Your task to perform on an android device: toggle data saver in the chrome app Image 0: 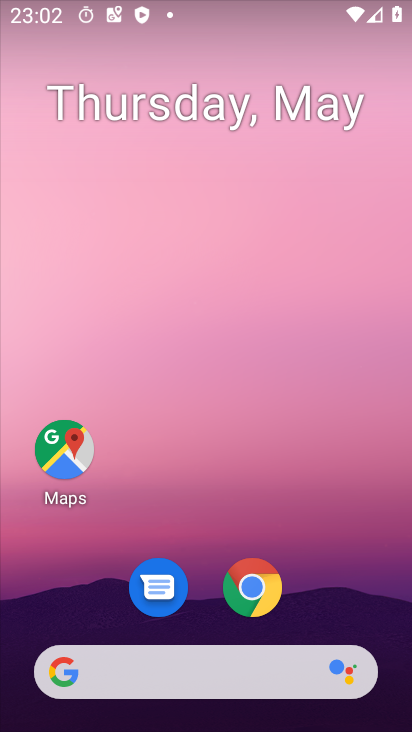
Step 0: click (254, 594)
Your task to perform on an android device: toggle data saver in the chrome app Image 1: 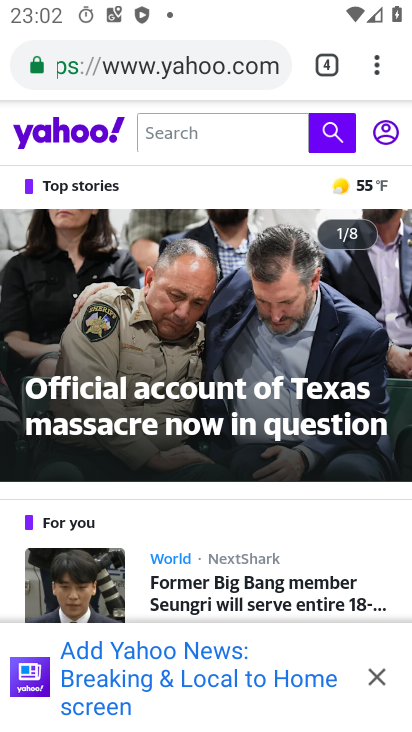
Step 1: click (378, 62)
Your task to perform on an android device: toggle data saver in the chrome app Image 2: 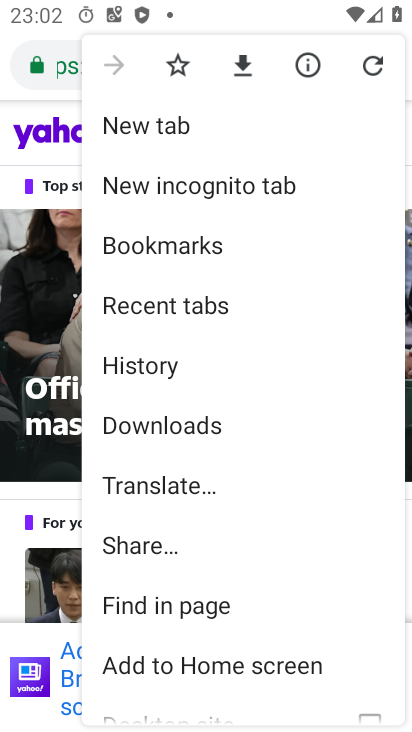
Step 2: drag from (250, 612) to (235, 121)
Your task to perform on an android device: toggle data saver in the chrome app Image 3: 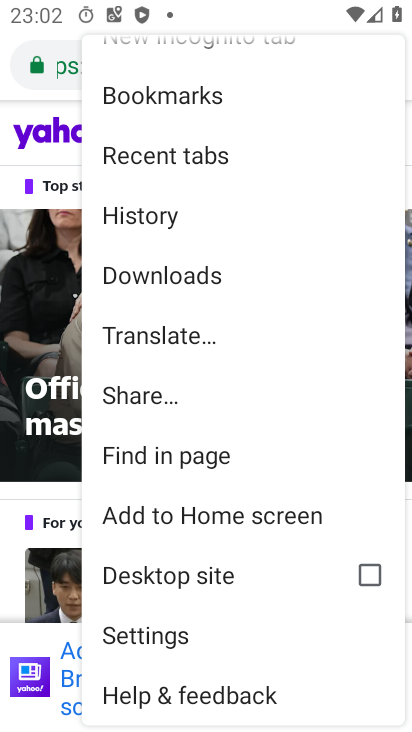
Step 3: click (157, 642)
Your task to perform on an android device: toggle data saver in the chrome app Image 4: 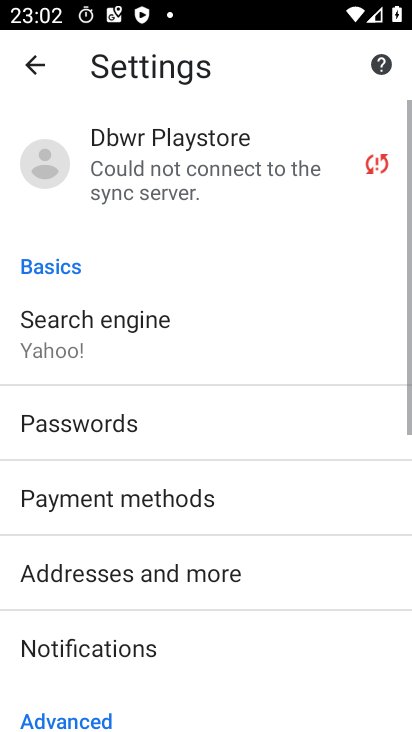
Step 4: drag from (157, 642) to (174, 108)
Your task to perform on an android device: toggle data saver in the chrome app Image 5: 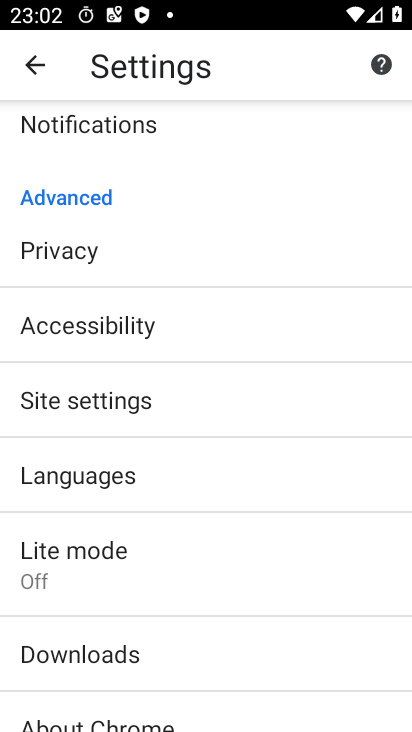
Step 5: click (87, 556)
Your task to perform on an android device: toggle data saver in the chrome app Image 6: 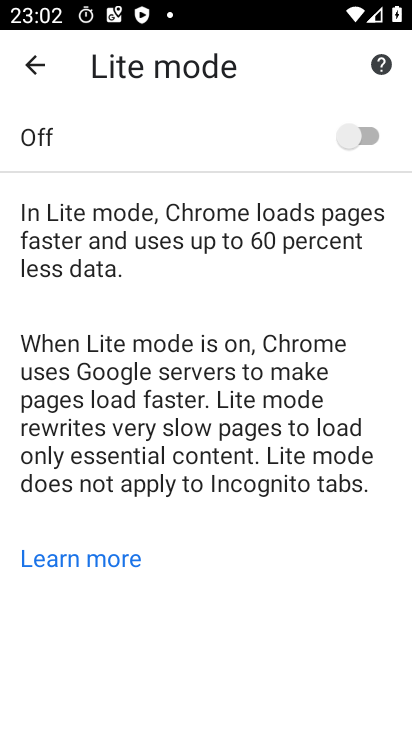
Step 6: click (347, 135)
Your task to perform on an android device: toggle data saver in the chrome app Image 7: 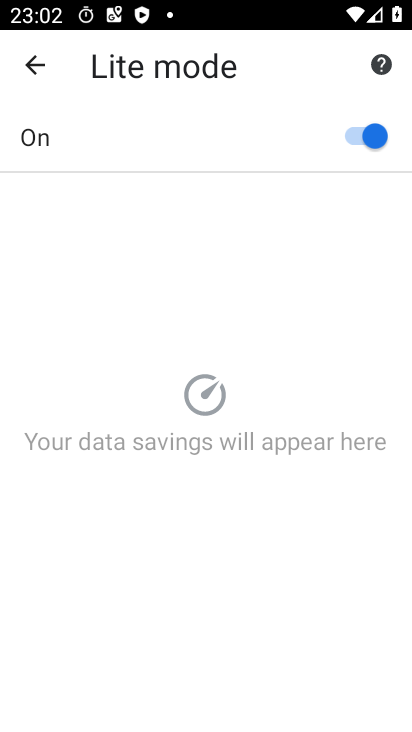
Step 7: task complete